Your task to perform on an android device: Go to wifi settings Image 0: 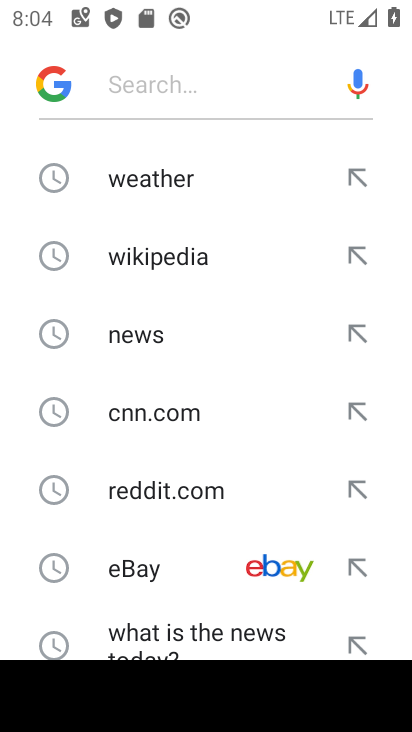
Step 0: press home button
Your task to perform on an android device: Go to wifi settings Image 1: 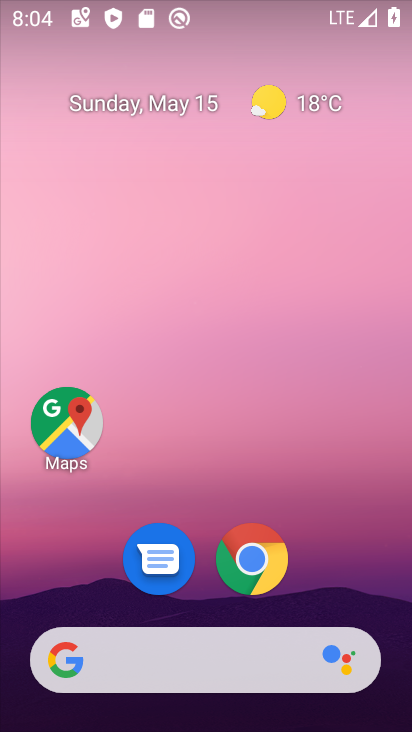
Step 1: drag from (219, 478) to (172, 84)
Your task to perform on an android device: Go to wifi settings Image 2: 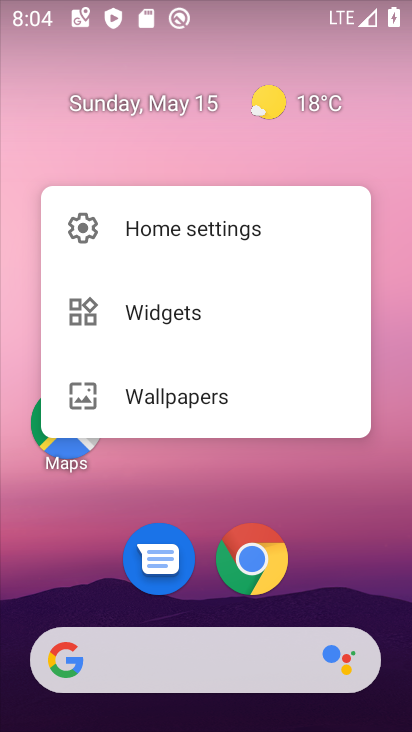
Step 2: click (358, 512)
Your task to perform on an android device: Go to wifi settings Image 3: 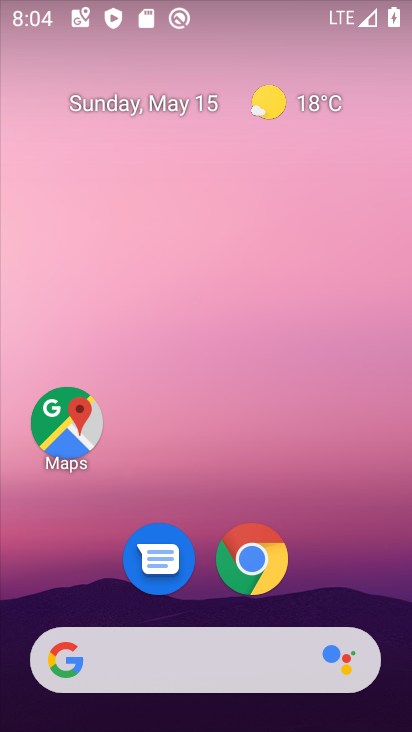
Step 3: drag from (294, 468) to (199, 32)
Your task to perform on an android device: Go to wifi settings Image 4: 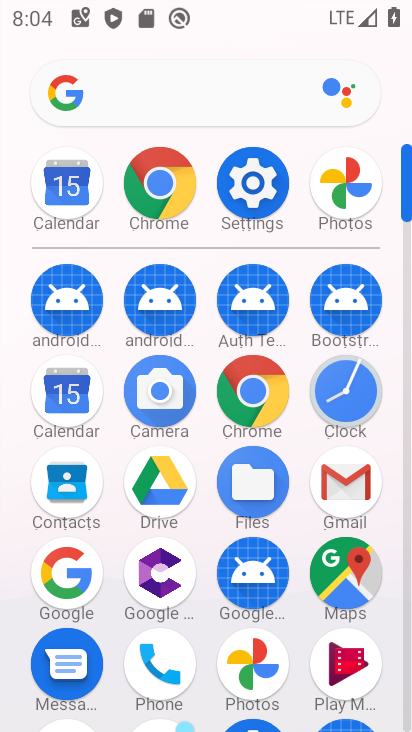
Step 4: click (252, 185)
Your task to perform on an android device: Go to wifi settings Image 5: 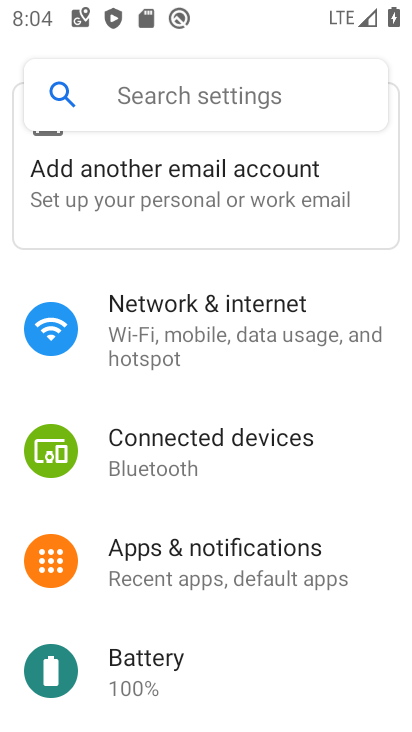
Step 5: click (187, 316)
Your task to perform on an android device: Go to wifi settings Image 6: 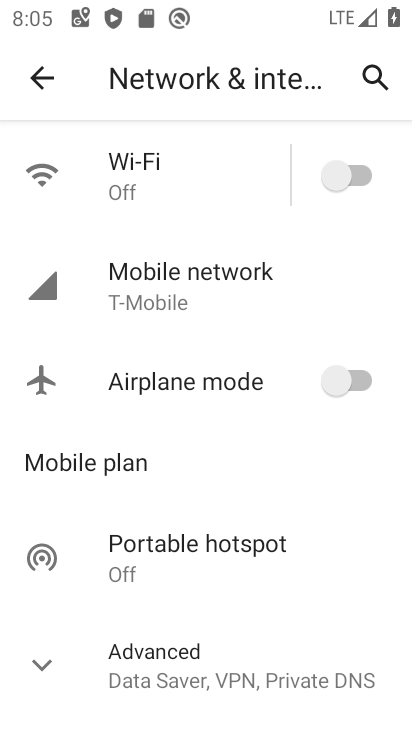
Step 6: task complete